Your task to perform on an android device: set the timer Image 0: 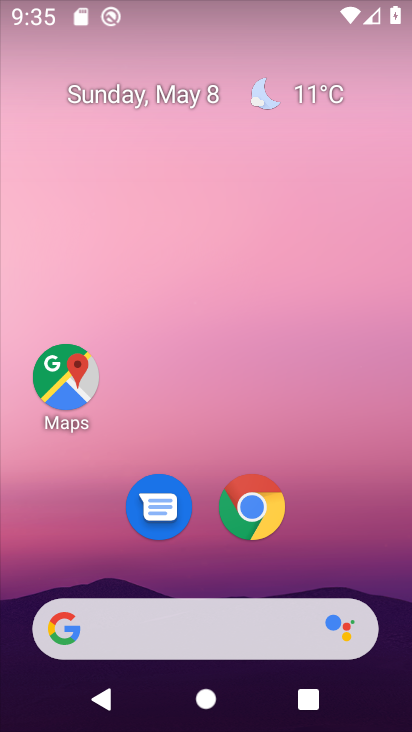
Step 0: drag from (341, 539) to (343, 18)
Your task to perform on an android device: set the timer Image 1: 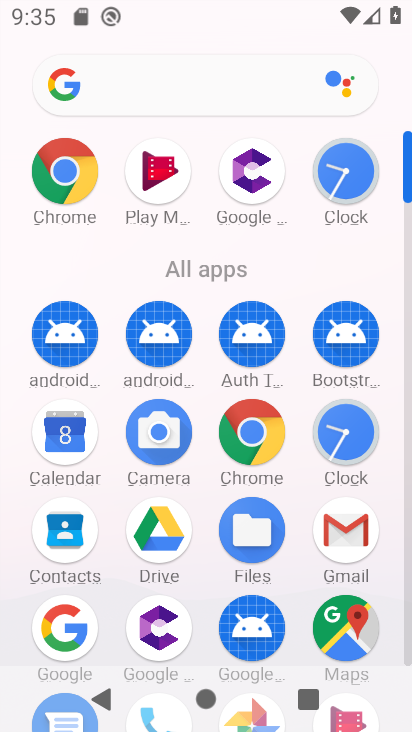
Step 1: click (358, 427)
Your task to perform on an android device: set the timer Image 2: 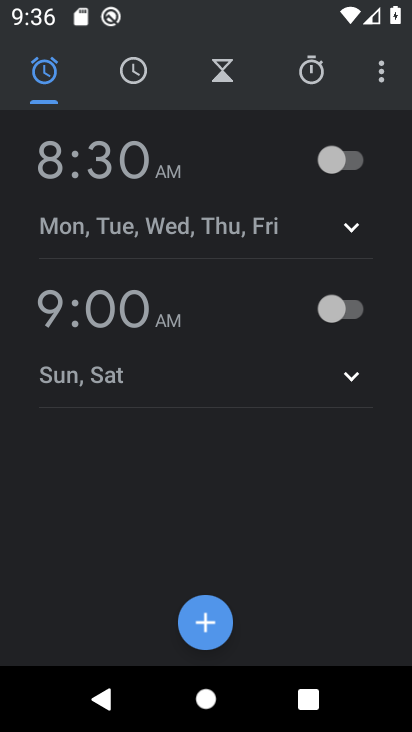
Step 2: click (314, 71)
Your task to perform on an android device: set the timer Image 3: 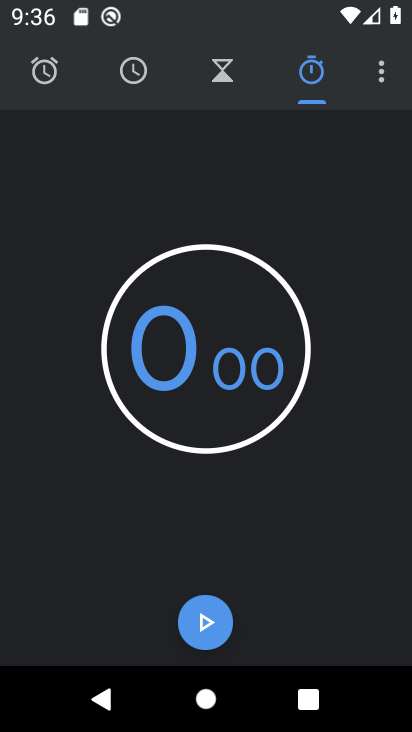
Step 3: click (194, 614)
Your task to perform on an android device: set the timer Image 4: 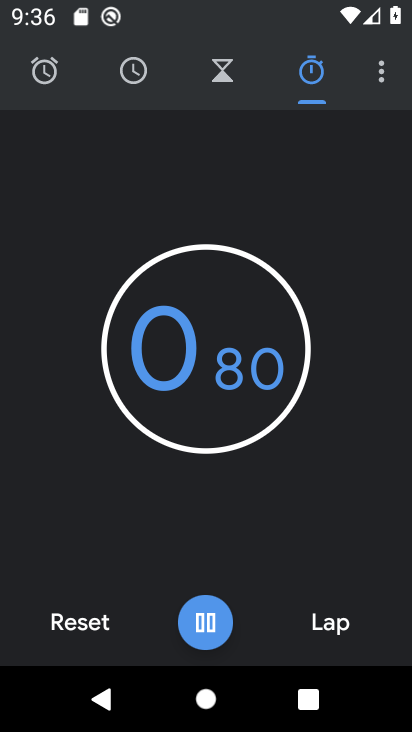
Step 4: click (204, 621)
Your task to perform on an android device: set the timer Image 5: 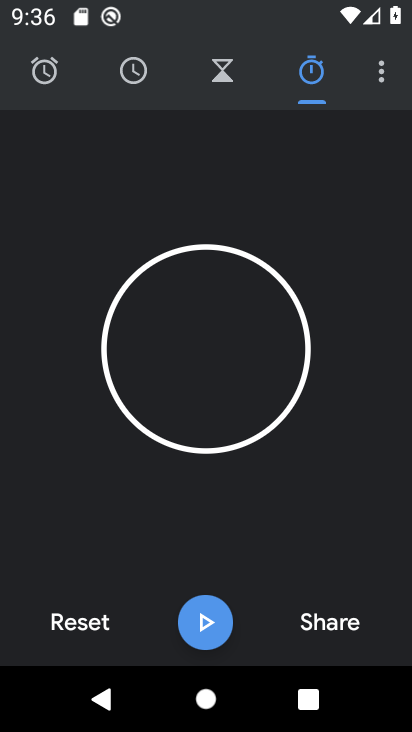
Step 5: task complete